Your task to perform on an android device: change keyboard looks Image 0: 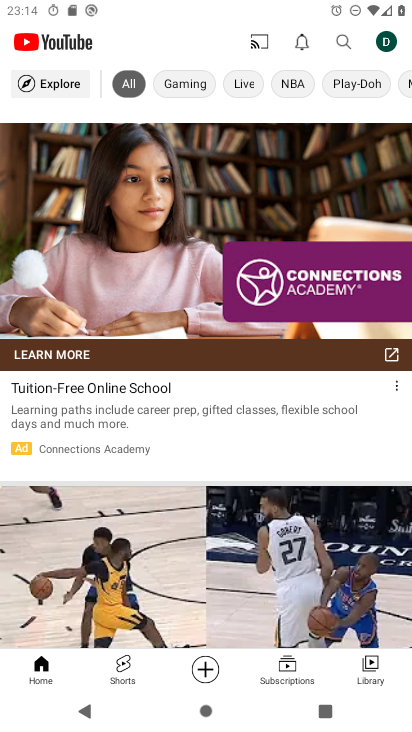
Step 0: press home button
Your task to perform on an android device: change keyboard looks Image 1: 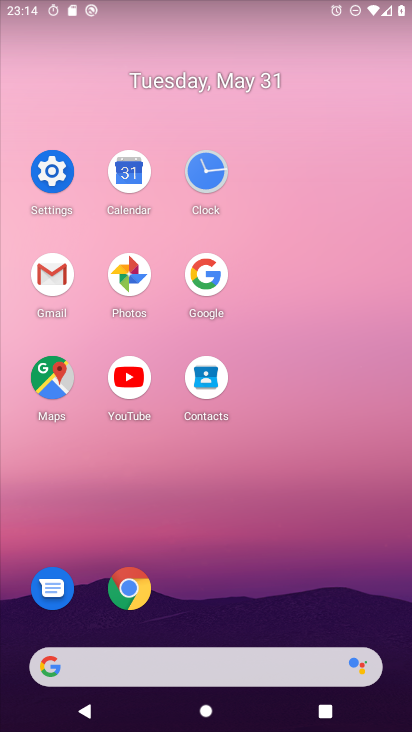
Step 1: click (44, 174)
Your task to perform on an android device: change keyboard looks Image 2: 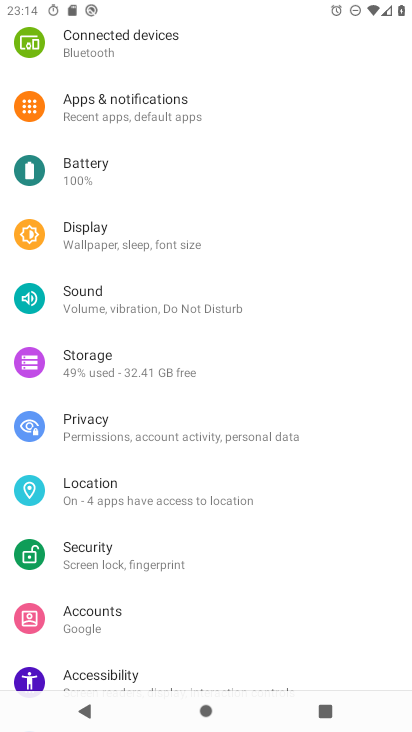
Step 2: drag from (178, 626) to (182, 277)
Your task to perform on an android device: change keyboard looks Image 3: 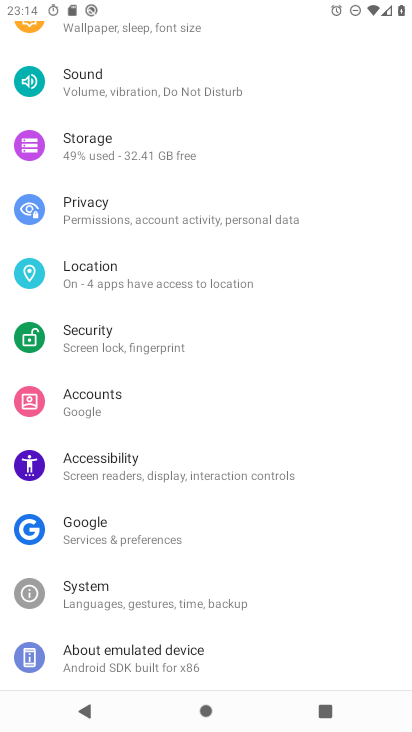
Step 3: click (87, 596)
Your task to perform on an android device: change keyboard looks Image 4: 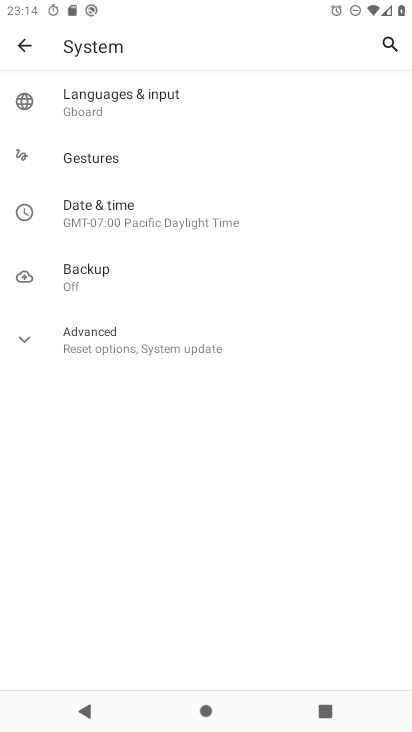
Step 4: click (137, 102)
Your task to perform on an android device: change keyboard looks Image 5: 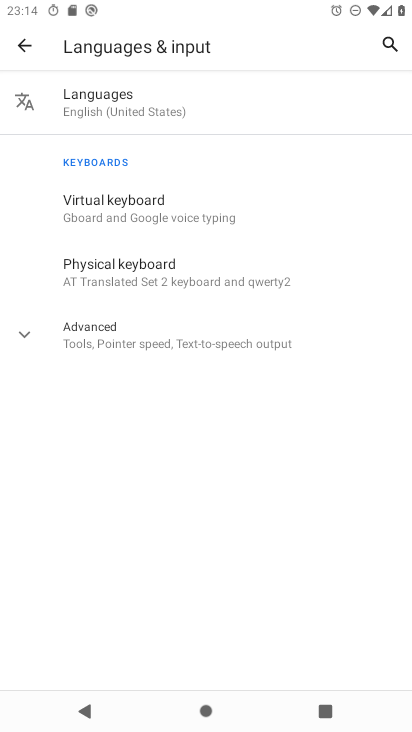
Step 5: click (171, 221)
Your task to perform on an android device: change keyboard looks Image 6: 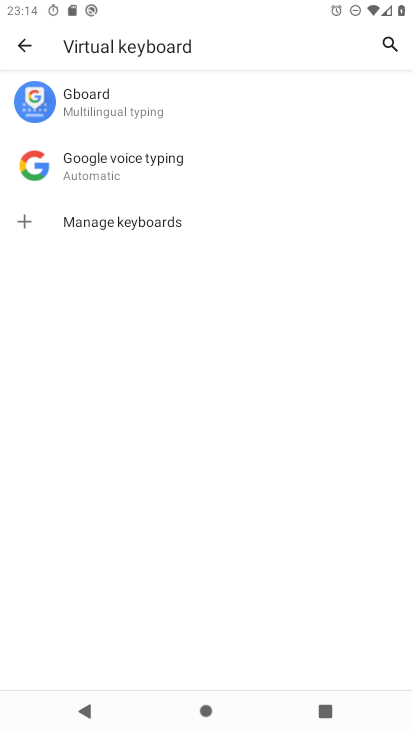
Step 6: click (120, 97)
Your task to perform on an android device: change keyboard looks Image 7: 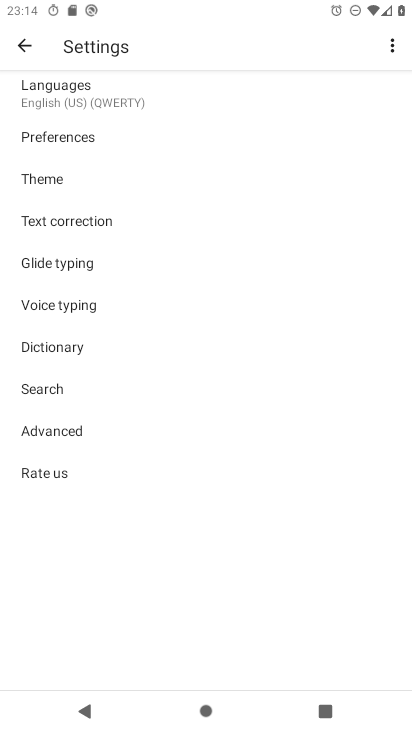
Step 7: click (103, 193)
Your task to perform on an android device: change keyboard looks Image 8: 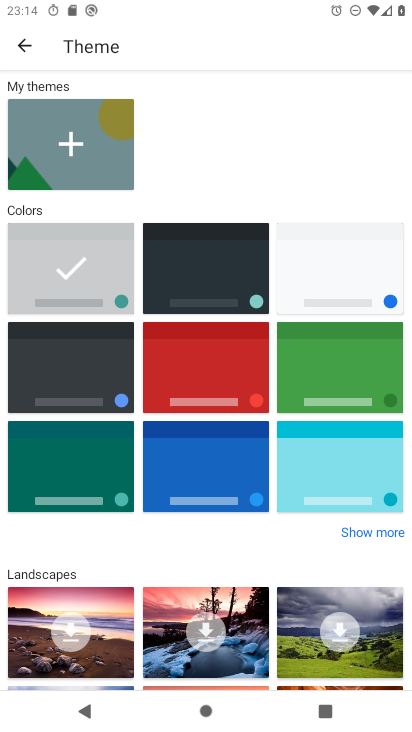
Step 8: click (242, 302)
Your task to perform on an android device: change keyboard looks Image 9: 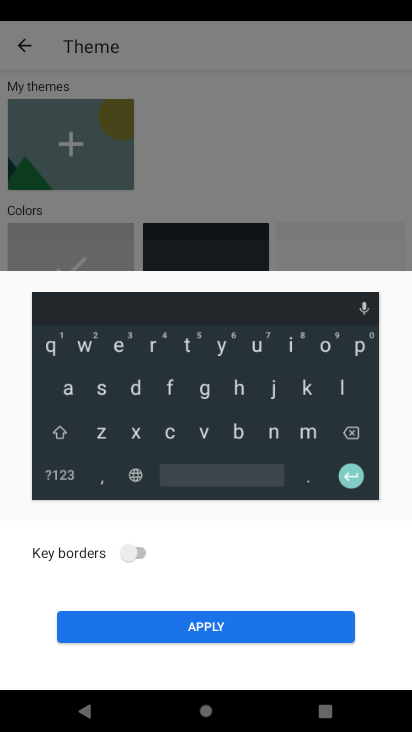
Step 9: click (116, 553)
Your task to perform on an android device: change keyboard looks Image 10: 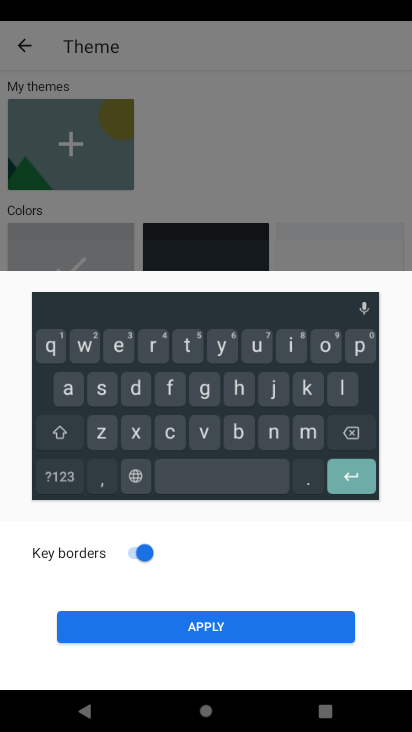
Step 10: click (253, 635)
Your task to perform on an android device: change keyboard looks Image 11: 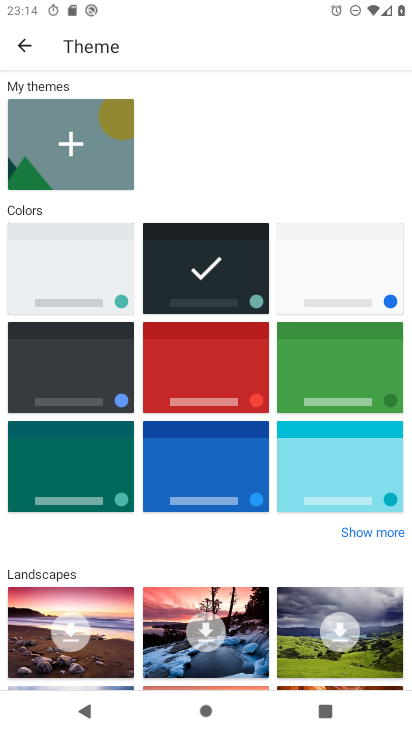
Step 11: task complete